Your task to perform on an android device: change timer sound Image 0: 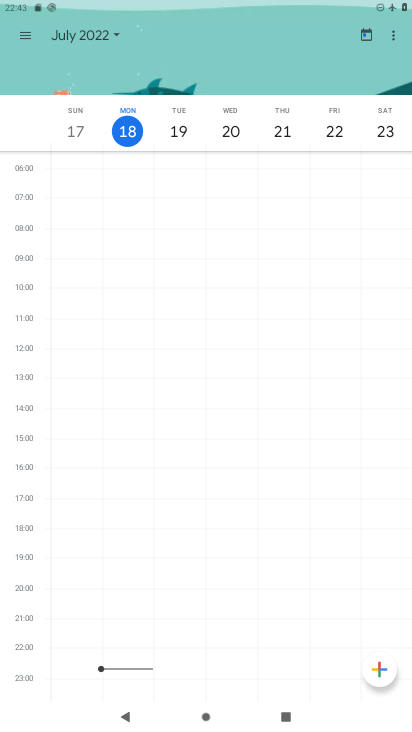
Step 0: press home button
Your task to perform on an android device: change timer sound Image 1: 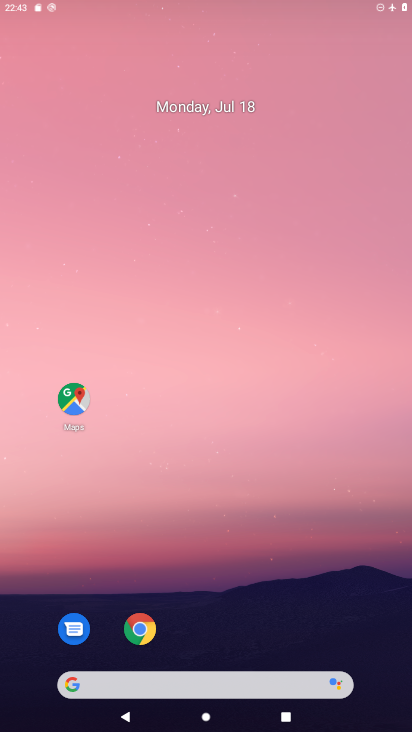
Step 1: drag from (288, 544) to (281, 143)
Your task to perform on an android device: change timer sound Image 2: 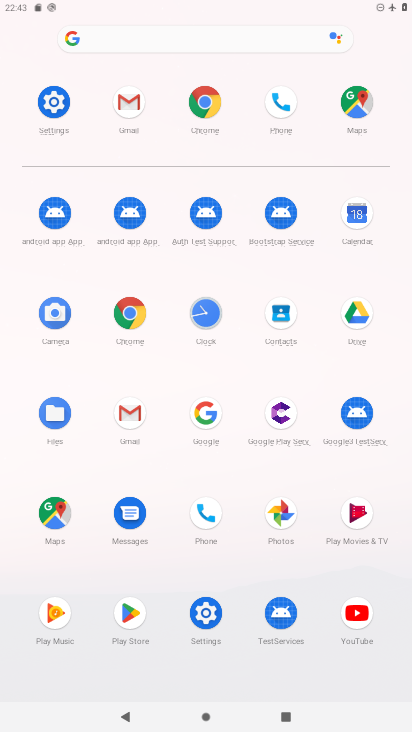
Step 2: click (213, 308)
Your task to perform on an android device: change timer sound Image 3: 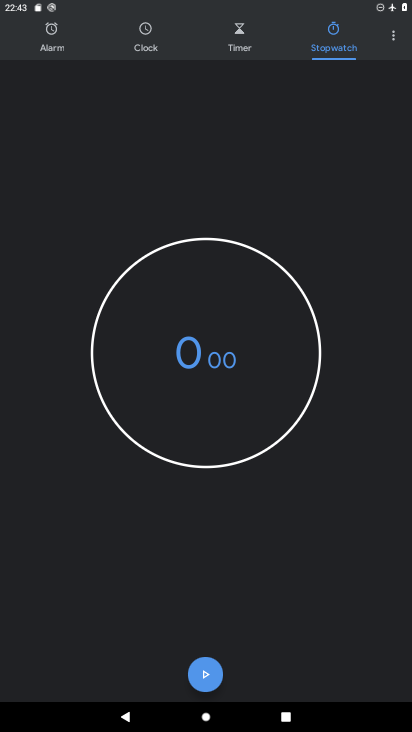
Step 3: click (391, 39)
Your task to perform on an android device: change timer sound Image 4: 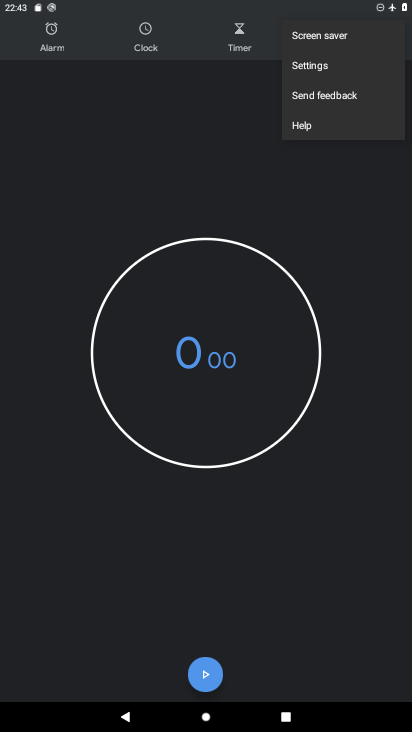
Step 4: click (315, 62)
Your task to perform on an android device: change timer sound Image 5: 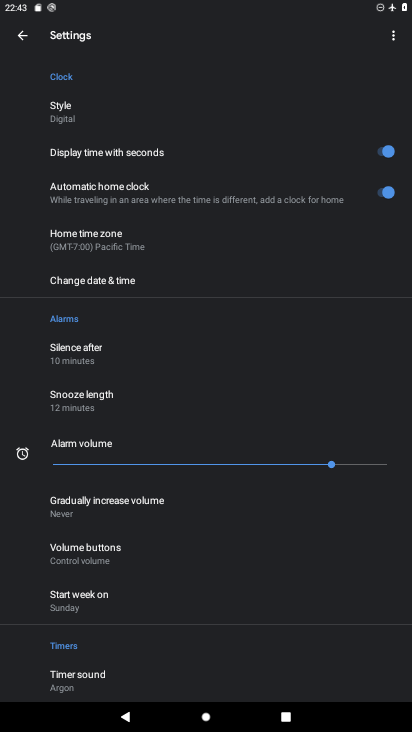
Step 5: click (83, 680)
Your task to perform on an android device: change timer sound Image 6: 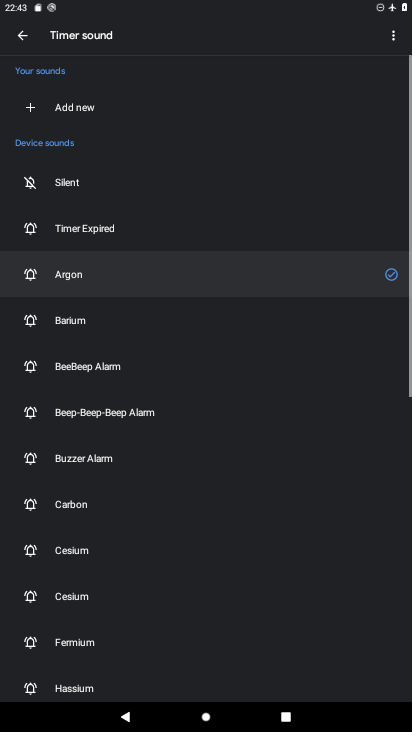
Step 6: click (116, 232)
Your task to perform on an android device: change timer sound Image 7: 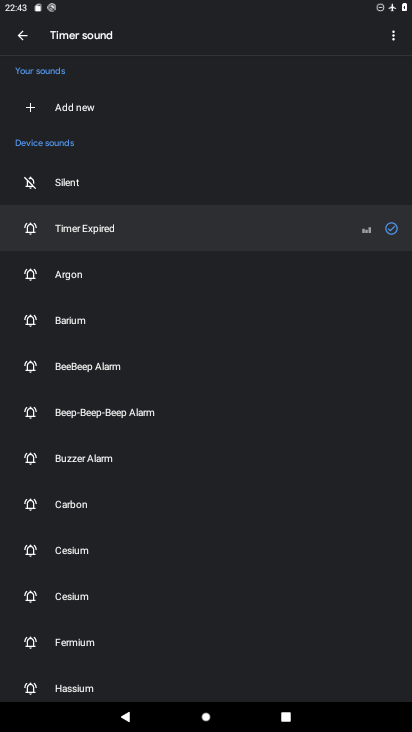
Step 7: task complete